Your task to perform on an android device: Open my contact list Image 0: 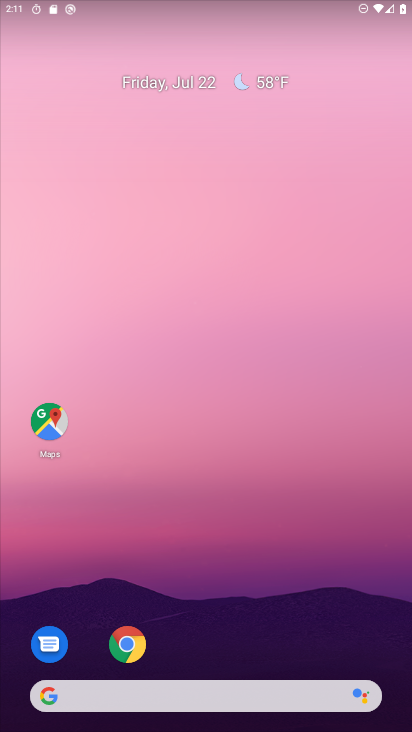
Step 0: drag from (229, 654) to (290, 102)
Your task to perform on an android device: Open my contact list Image 1: 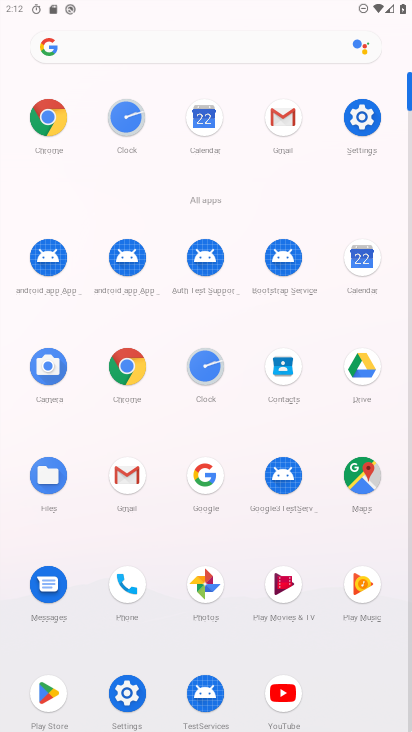
Step 1: click (269, 384)
Your task to perform on an android device: Open my contact list Image 2: 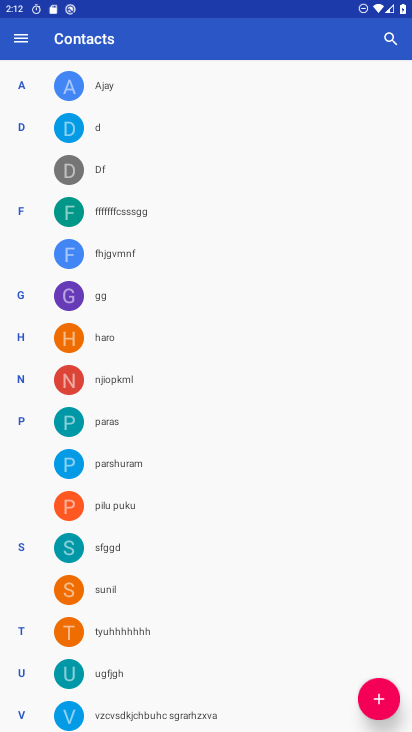
Step 2: task complete